Your task to perform on an android device: toggle wifi Image 0: 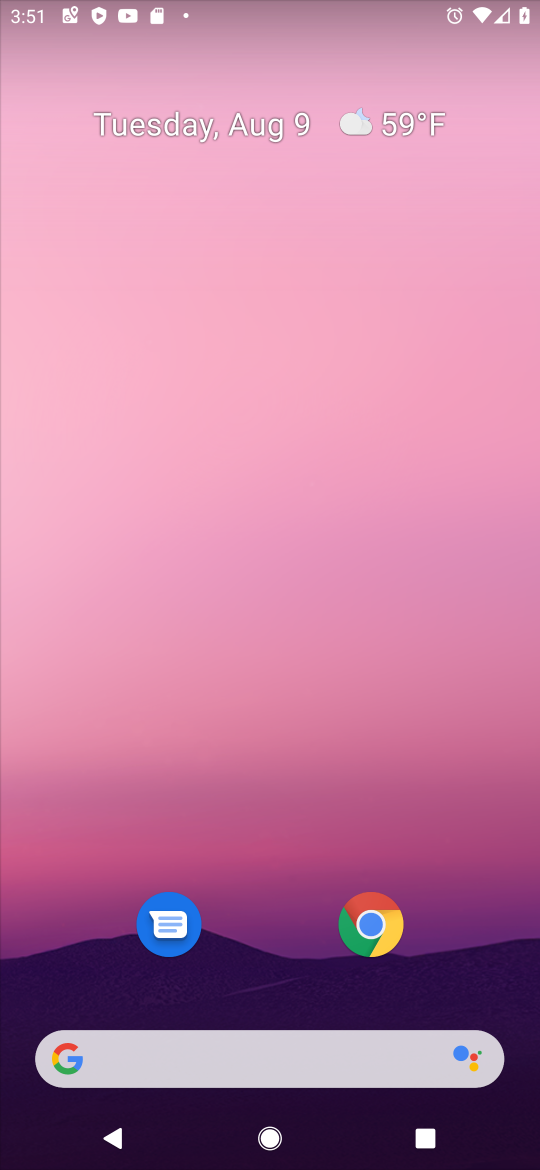
Step 0: drag from (267, 918) to (350, 0)
Your task to perform on an android device: toggle wifi Image 1: 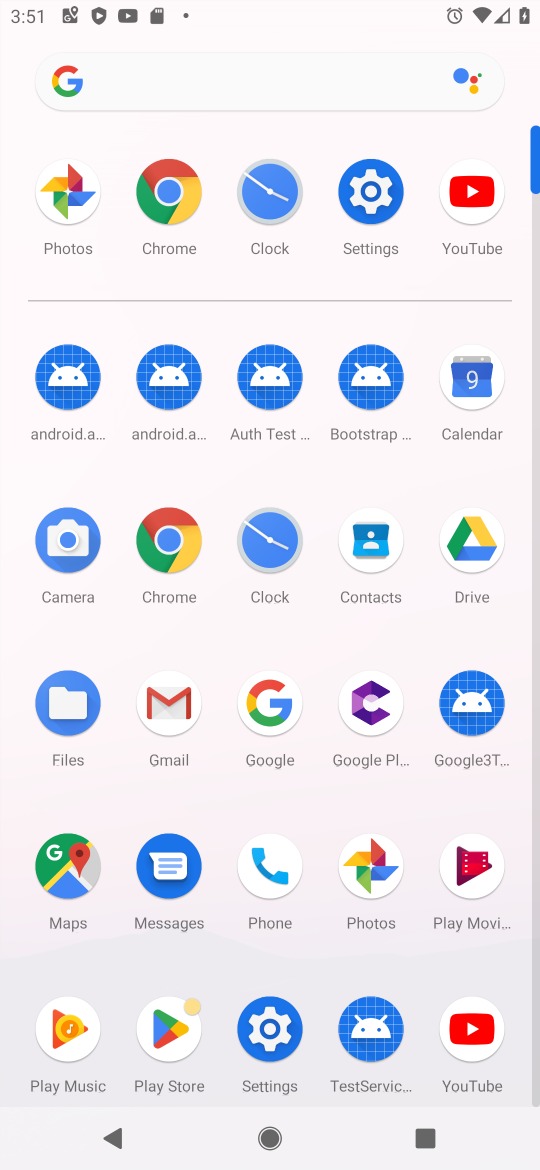
Step 1: click (372, 194)
Your task to perform on an android device: toggle wifi Image 2: 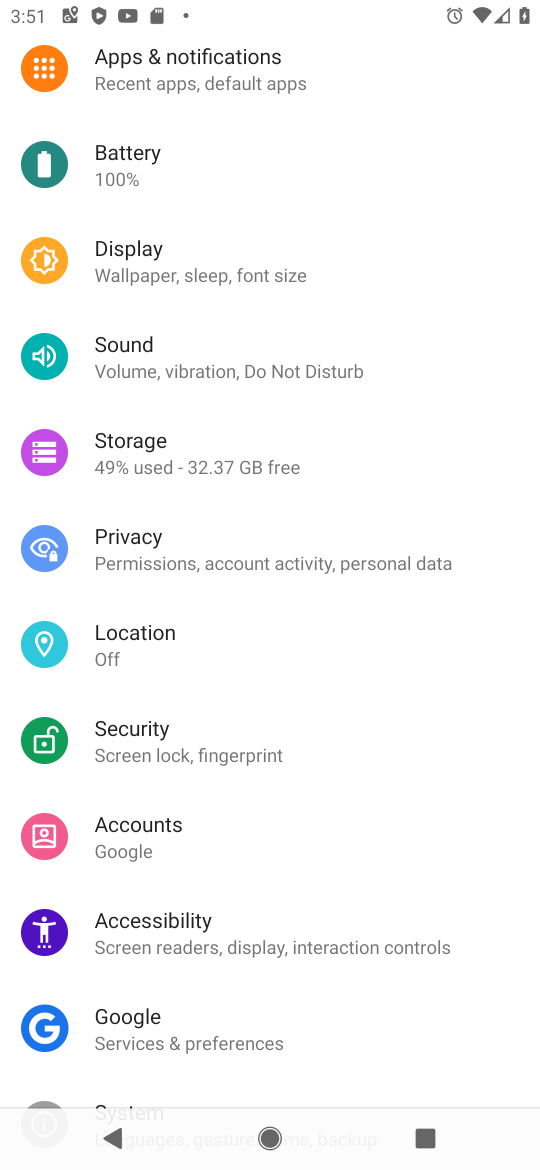
Step 2: drag from (261, 240) to (234, 927)
Your task to perform on an android device: toggle wifi Image 3: 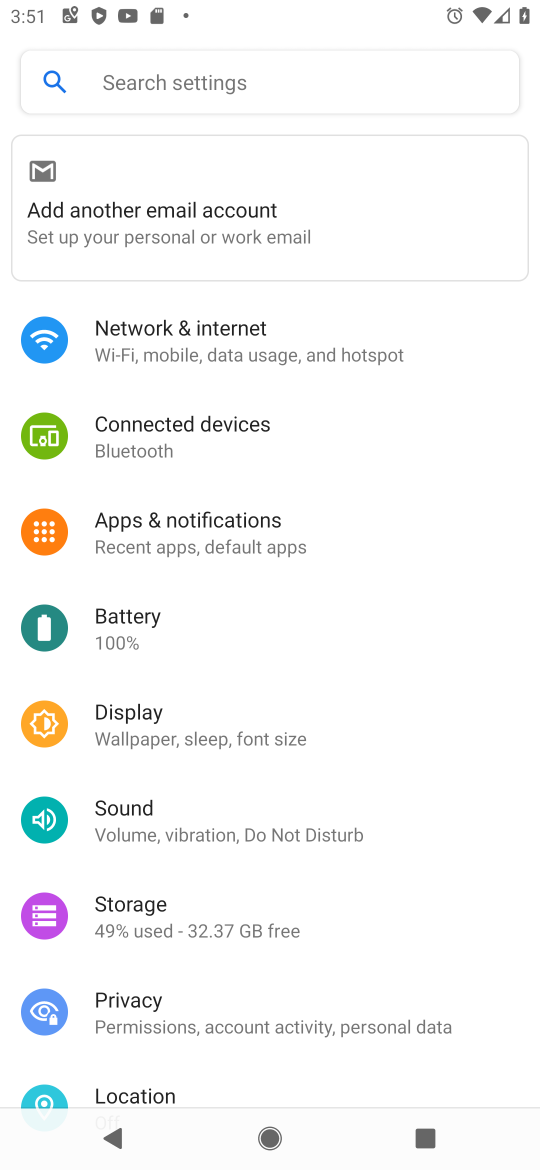
Step 3: click (247, 343)
Your task to perform on an android device: toggle wifi Image 4: 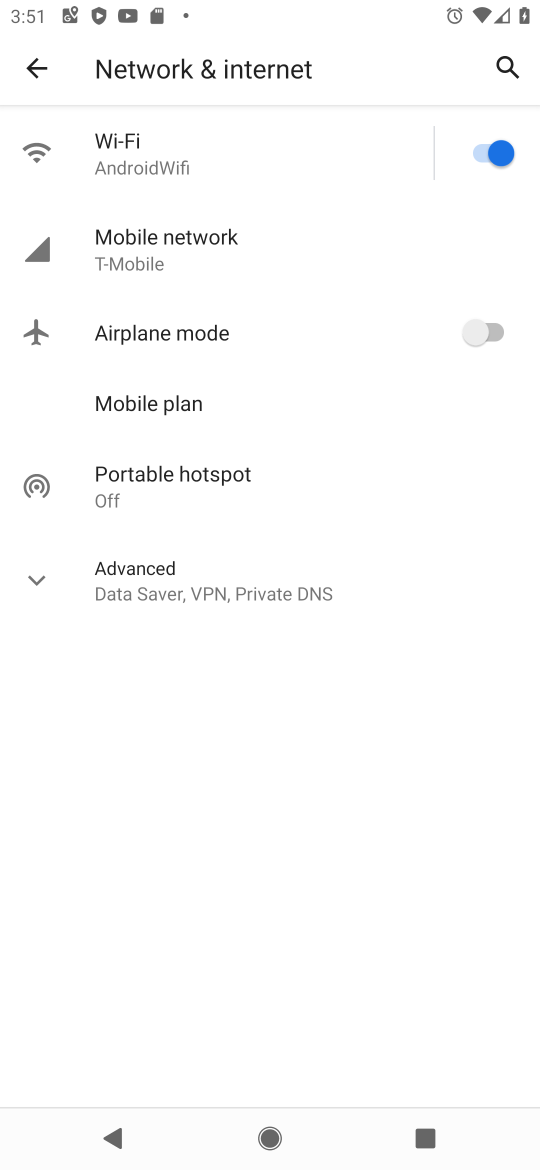
Step 4: click (487, 145)
Your task to perform on an android device: toggle wifi Image 5: 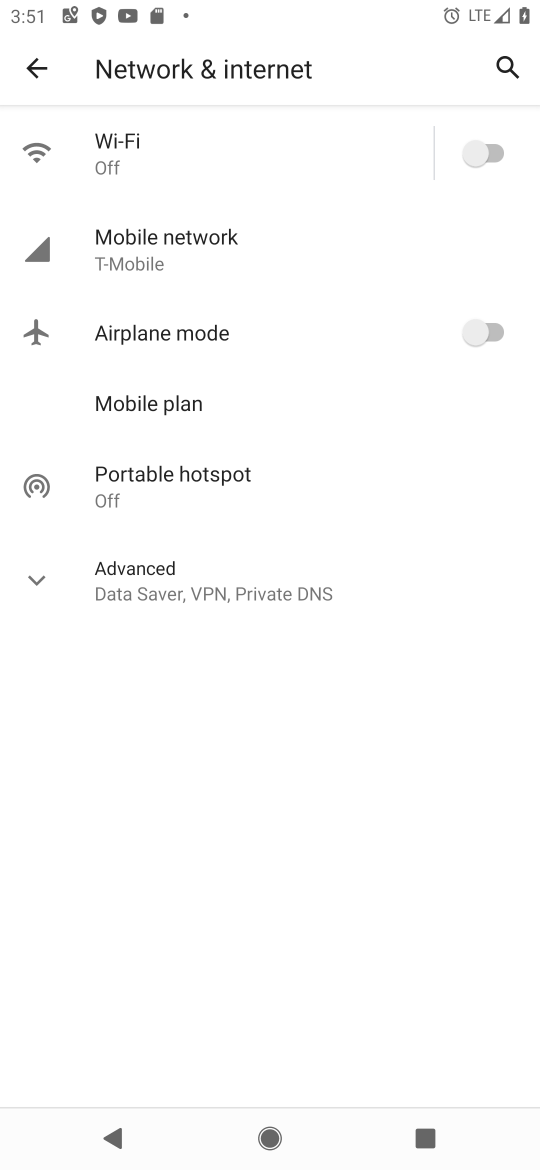
Step 5: task complete